Your task to perform on an android device: Search for the best gaming monitor on Best Buy Image 0: 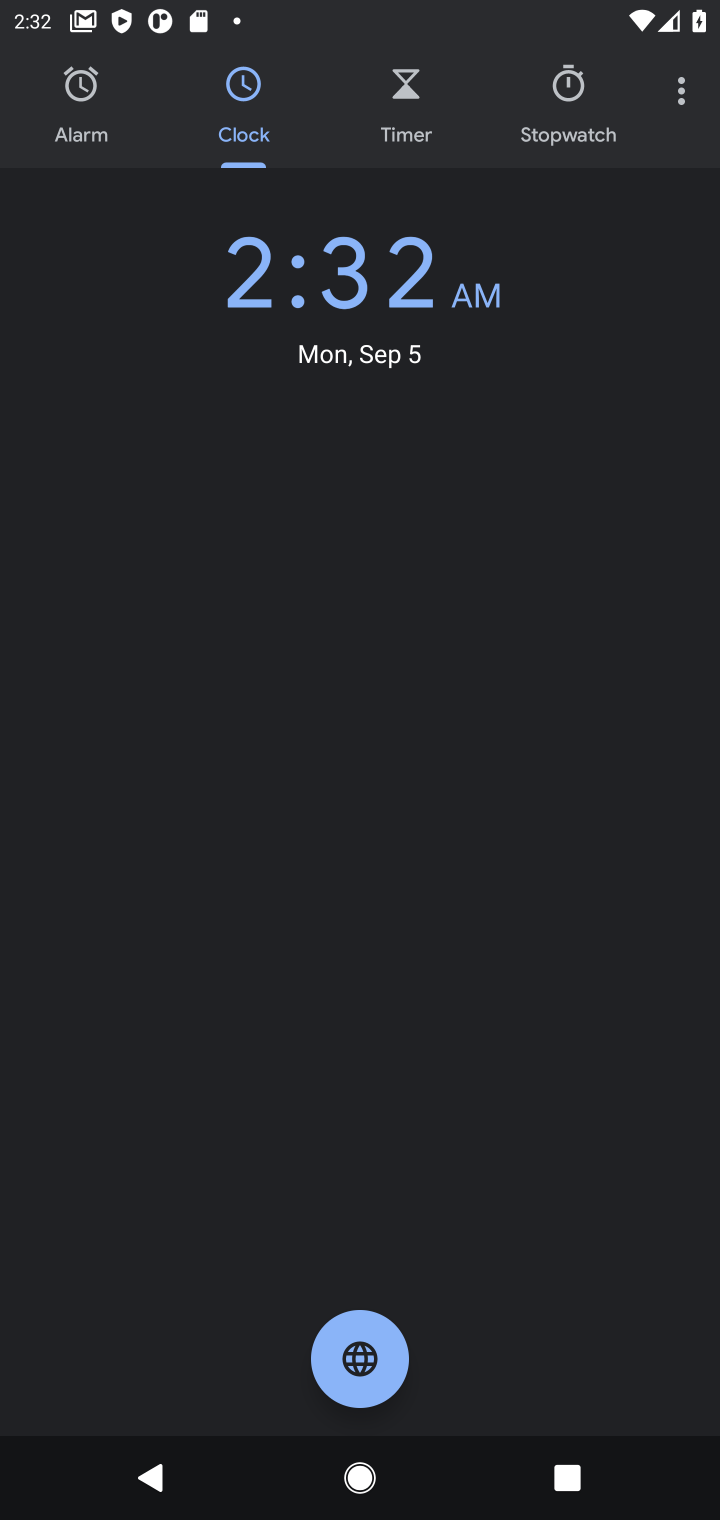
Step 0: press home button
Your task to perform on an android device: Search for the best gaming monitor on Best Buy Image 1: 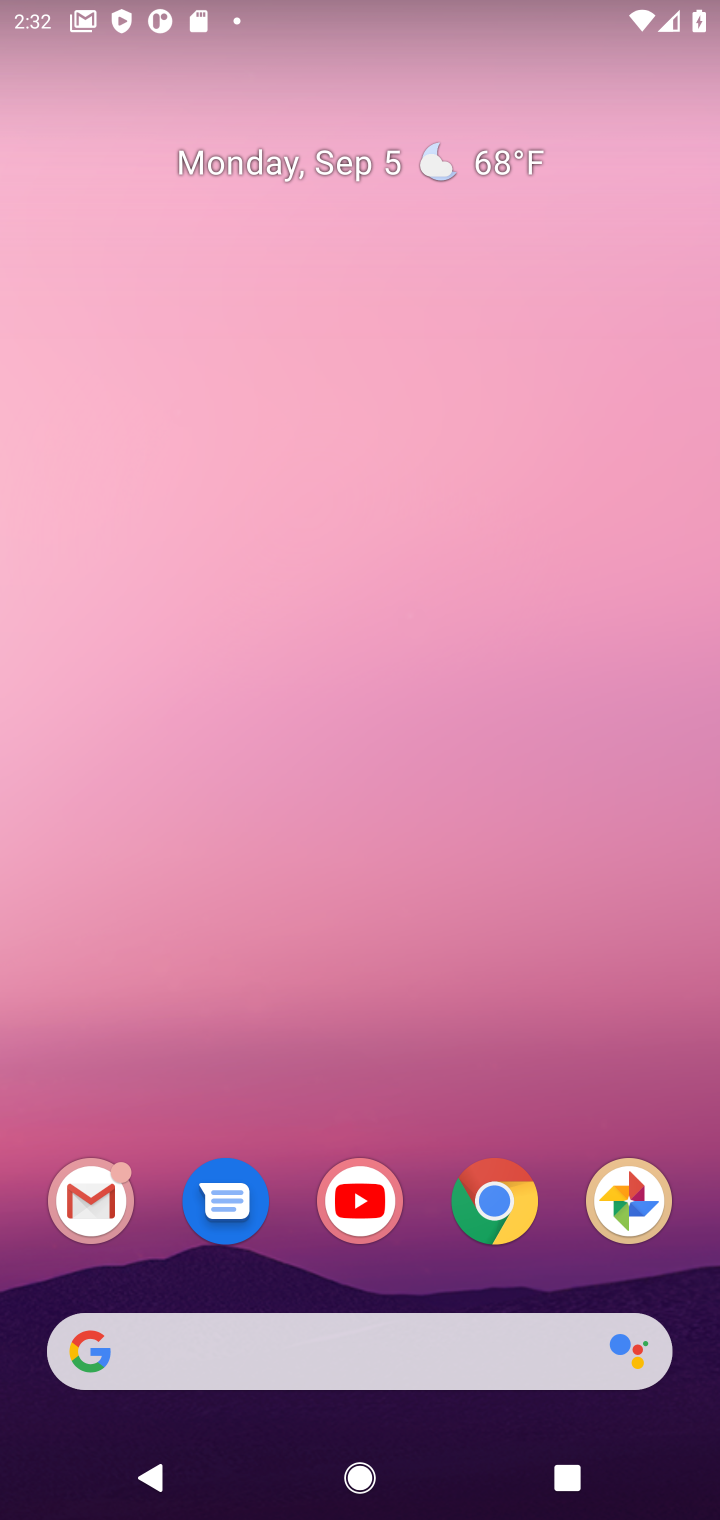
Step 1: click (504, 1199)
Your task to perform on an android device: Search for the best gaming monitor on Best Buy Image 2: 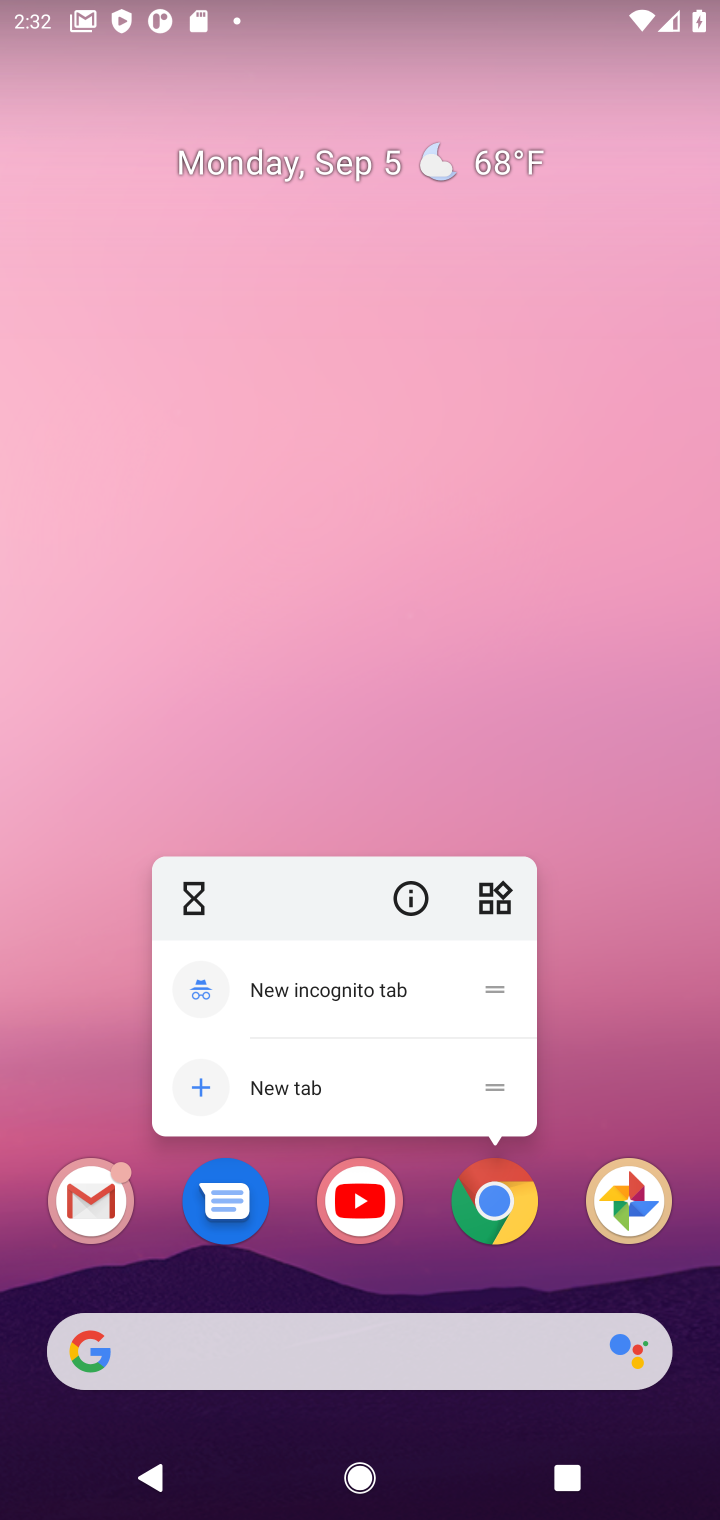
Step 2: click (504, 1199)
Your task to perform on an android device: Search for the best gaming monitor on Best Buy Image 3: 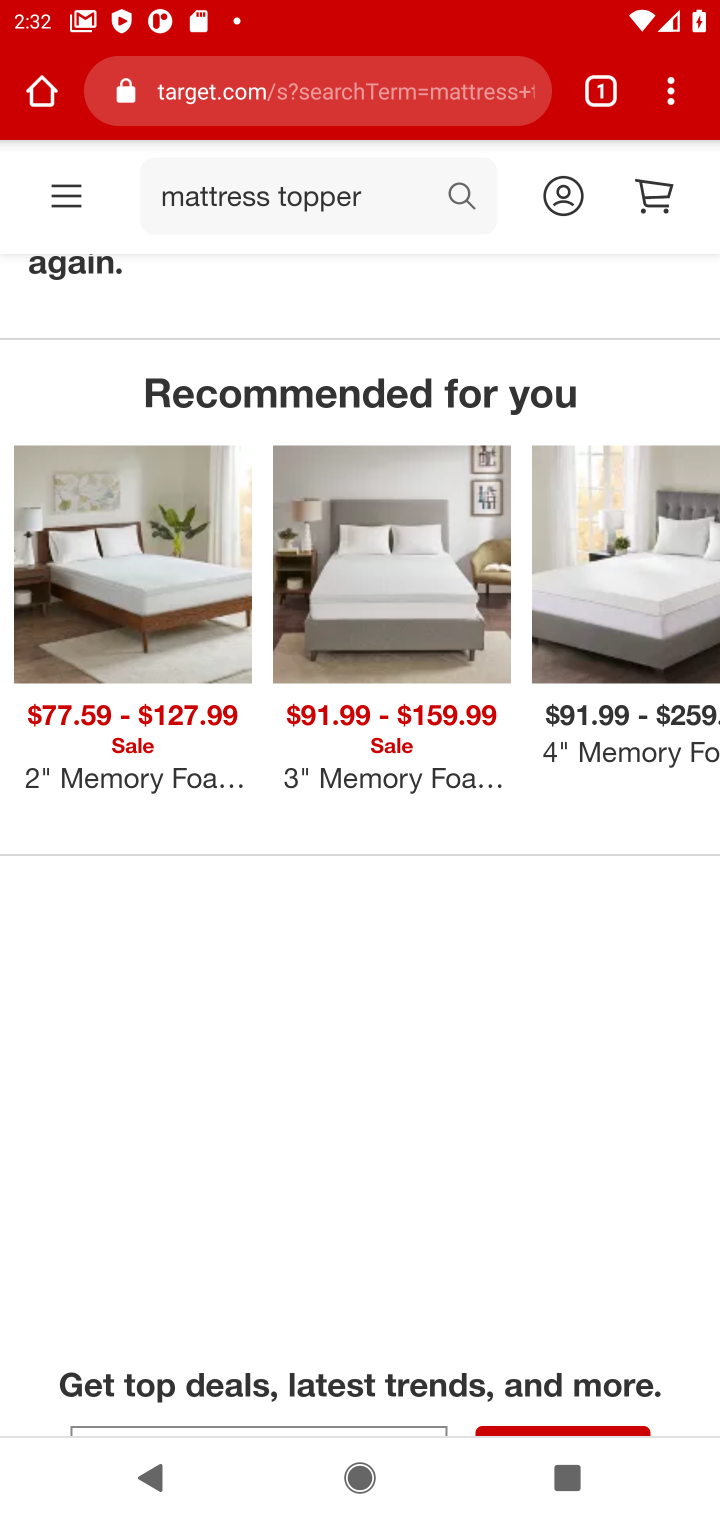
Step 3: click (389, 80)
Your task to perform on an android device: Search for the best gaming monitor on Best Buy Image 4: 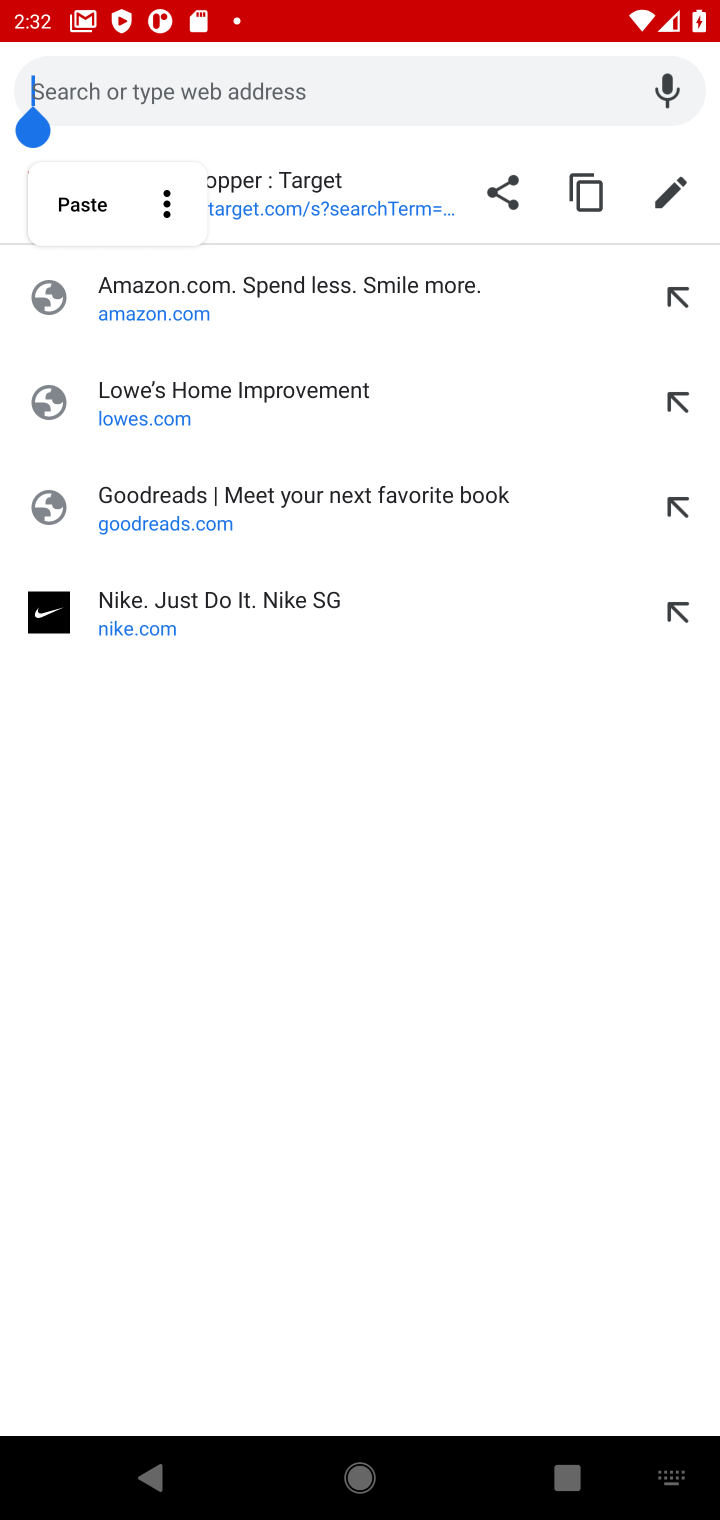
Step 4: click (363, 86)
Your task to perform on an android device: Search for the best gaming monitor on Best Buy Image 5: 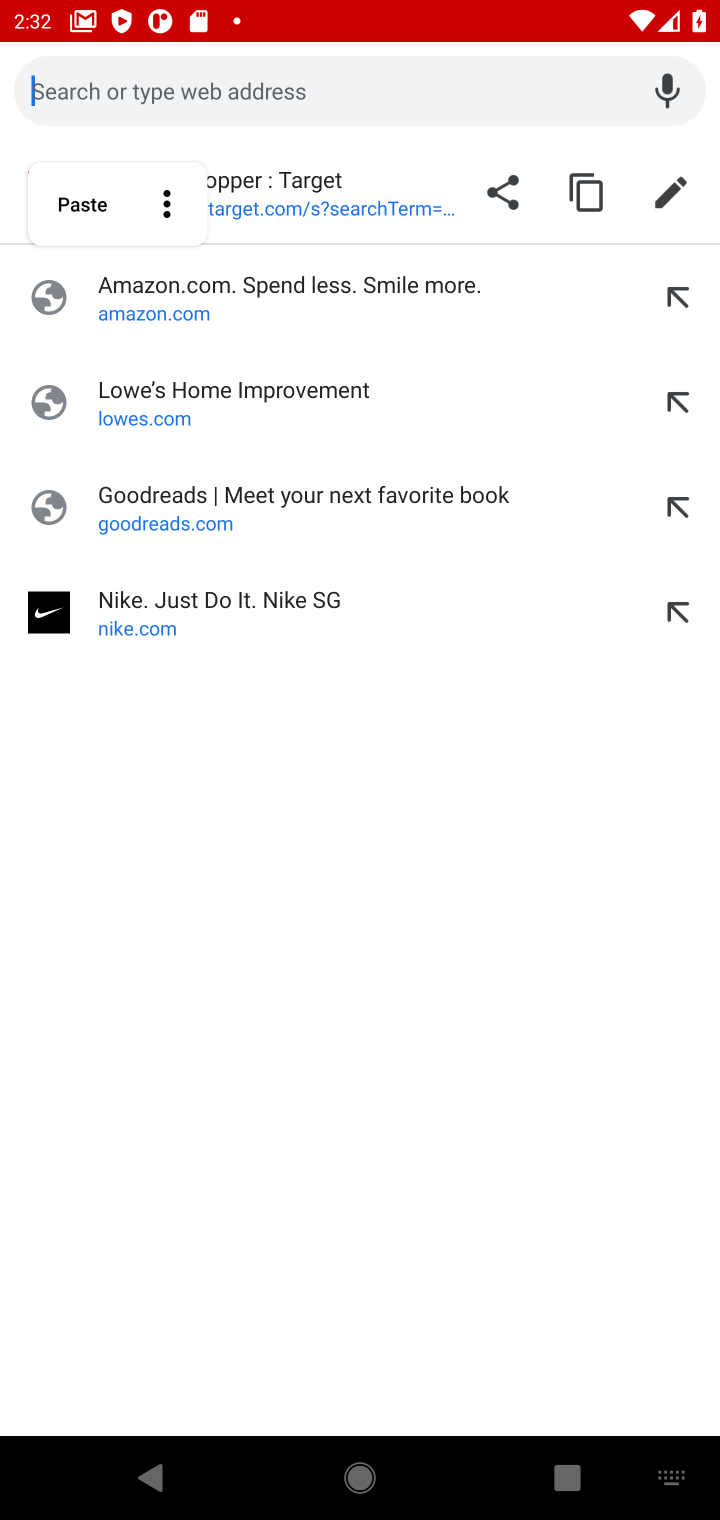
Step 5: type "Best Buy"
Your task to perform on an android device: Search for the best gaming monitor on Best Buy Image 6: 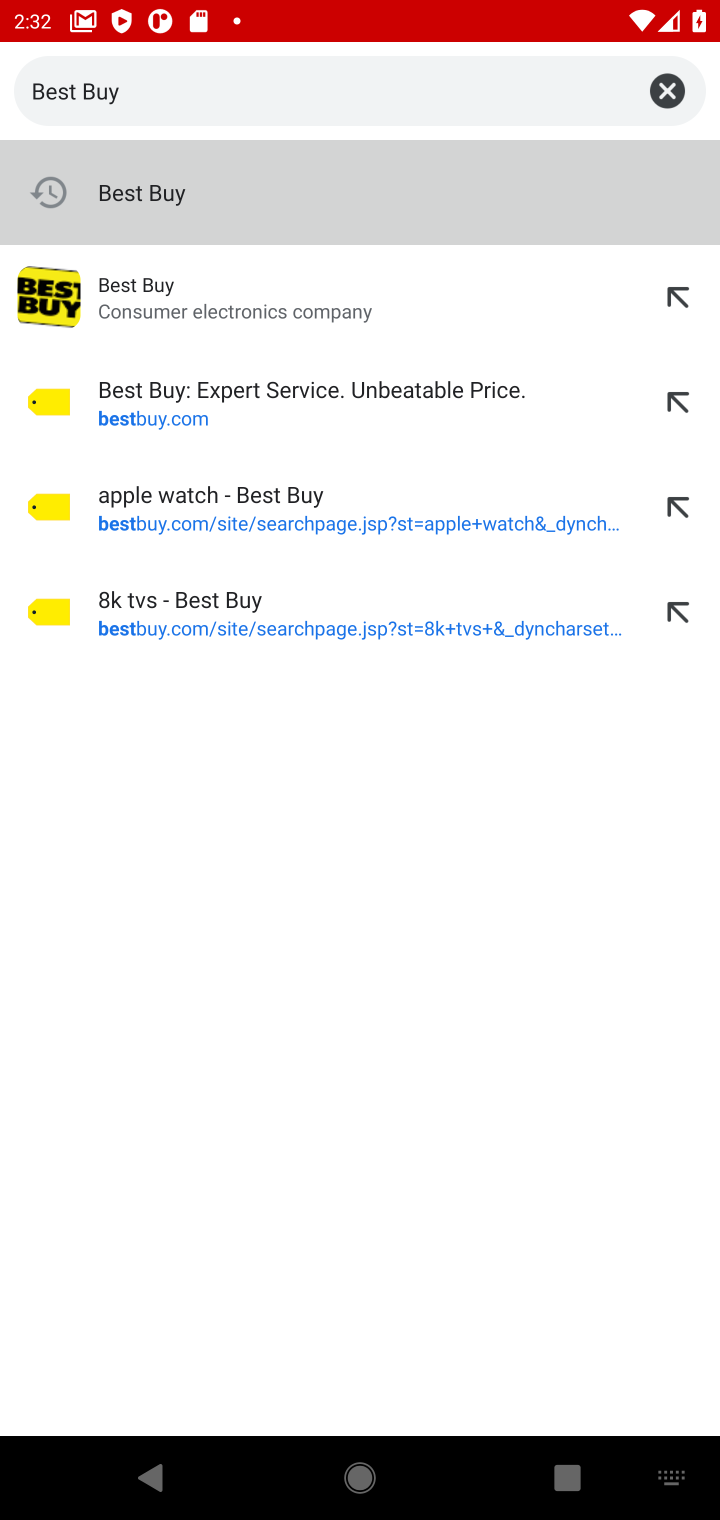
Step 6: press enter
Your task to perform on an android device: Search for the best gaming monitor on Best Buy Image 7: 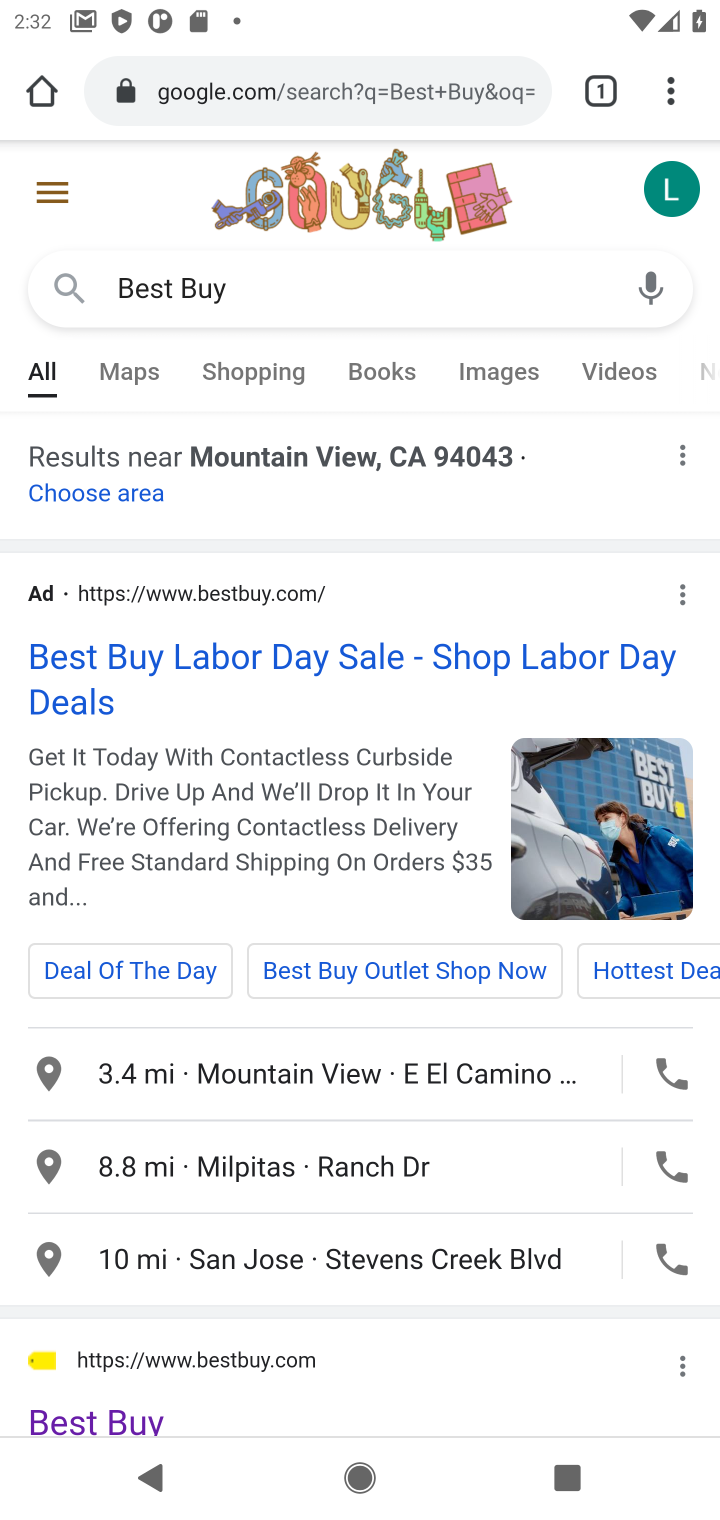
Step 7: drag from (263, 935) to (630, 111)
Your task to perform on an android device: Search for the best gaming monitor on Best Buy Image 8: 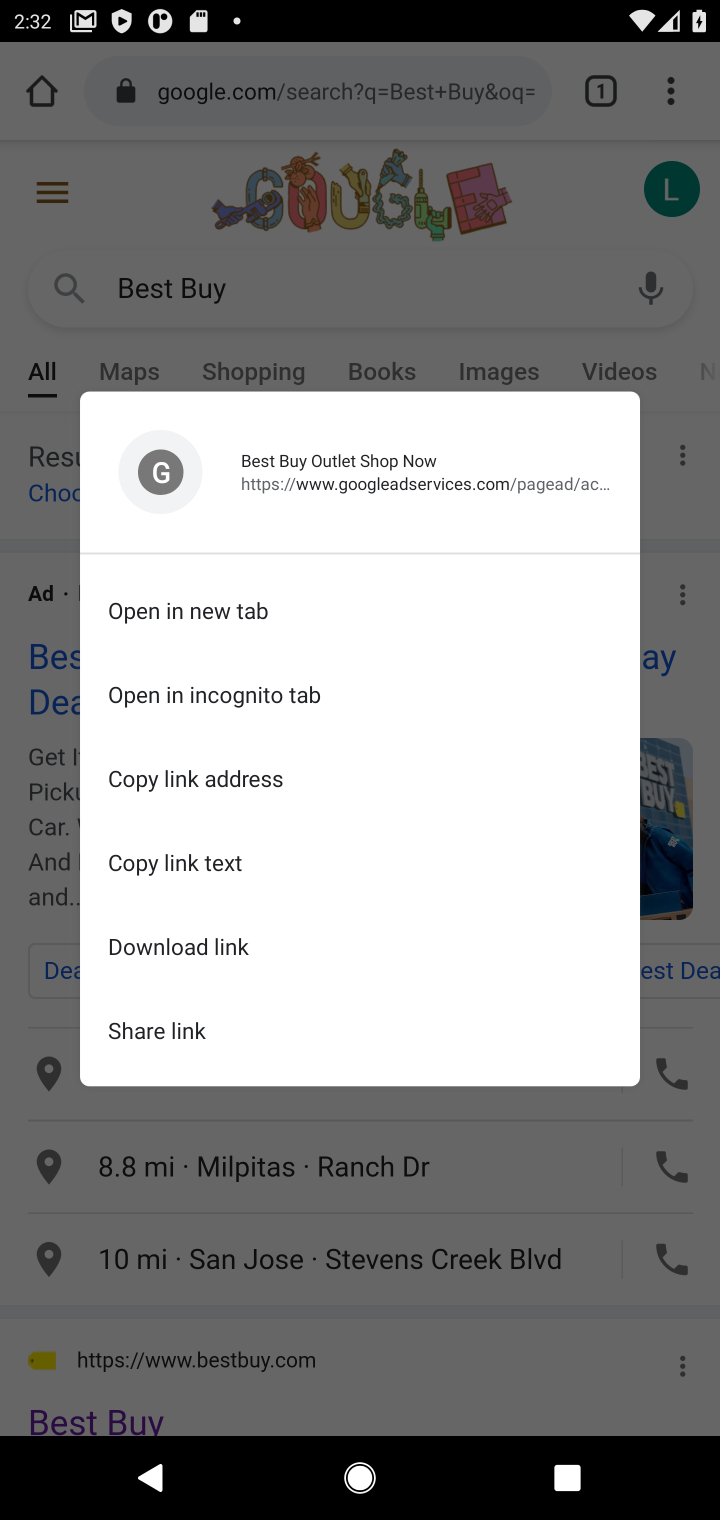
Step 8: click (512, 1276)
Your task to perform on an android device: Search for the best gaming monitor on Best Buy Image 9: 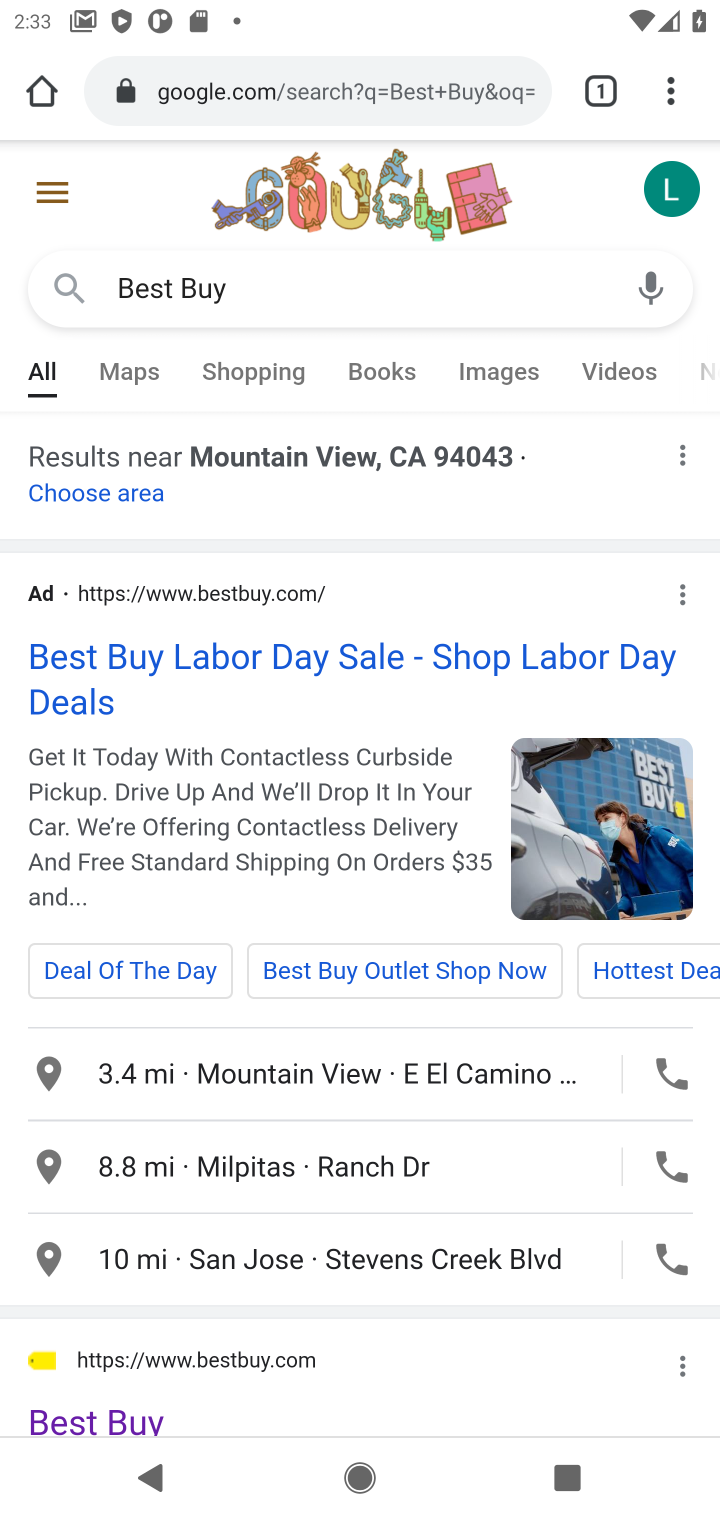
Step 9: click (133, 1429)
Your task to perform on an android device: Search for the best gaming monitor on Best Buy Image 10: 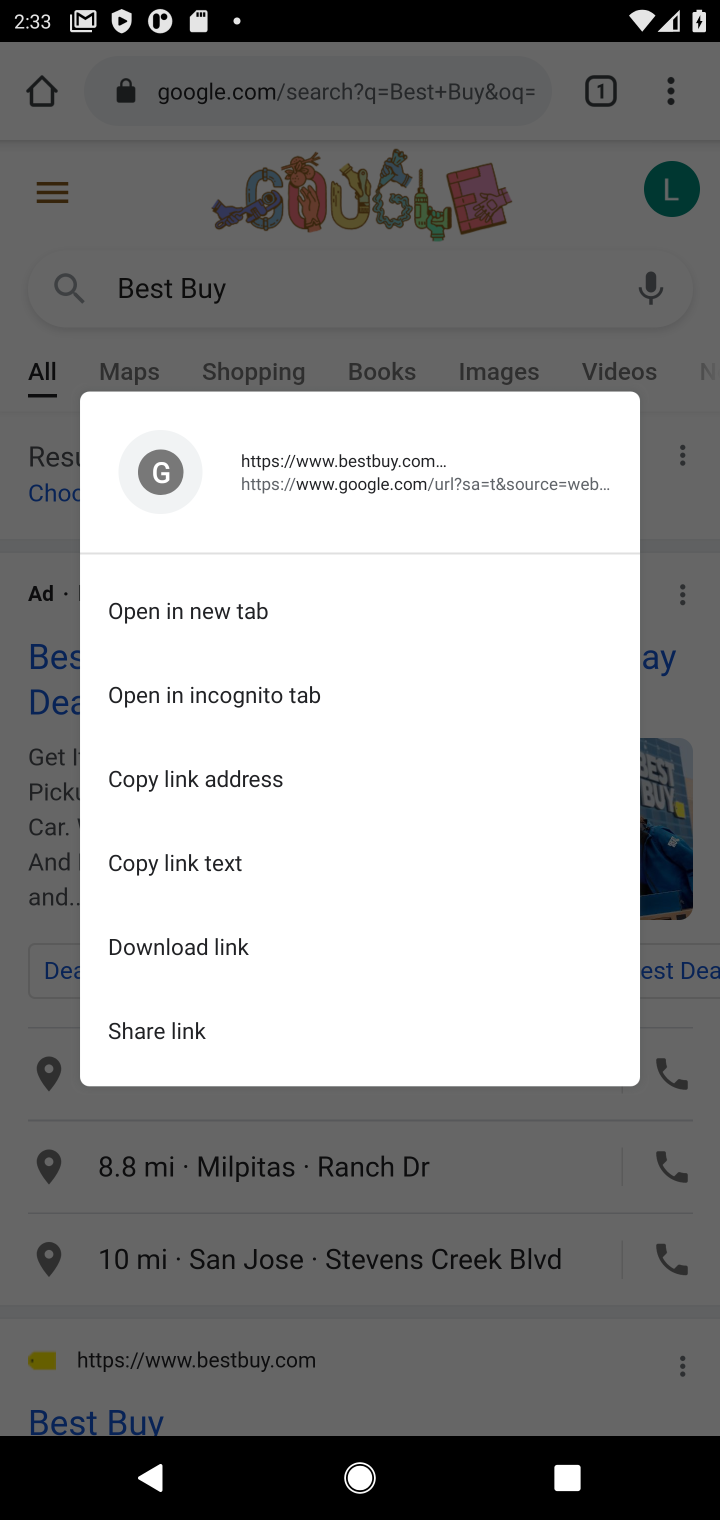
Step 10: click (405, 1377)
Your task to perform on an android device: Search for the best gaming monitor on Best Buy Image 11: 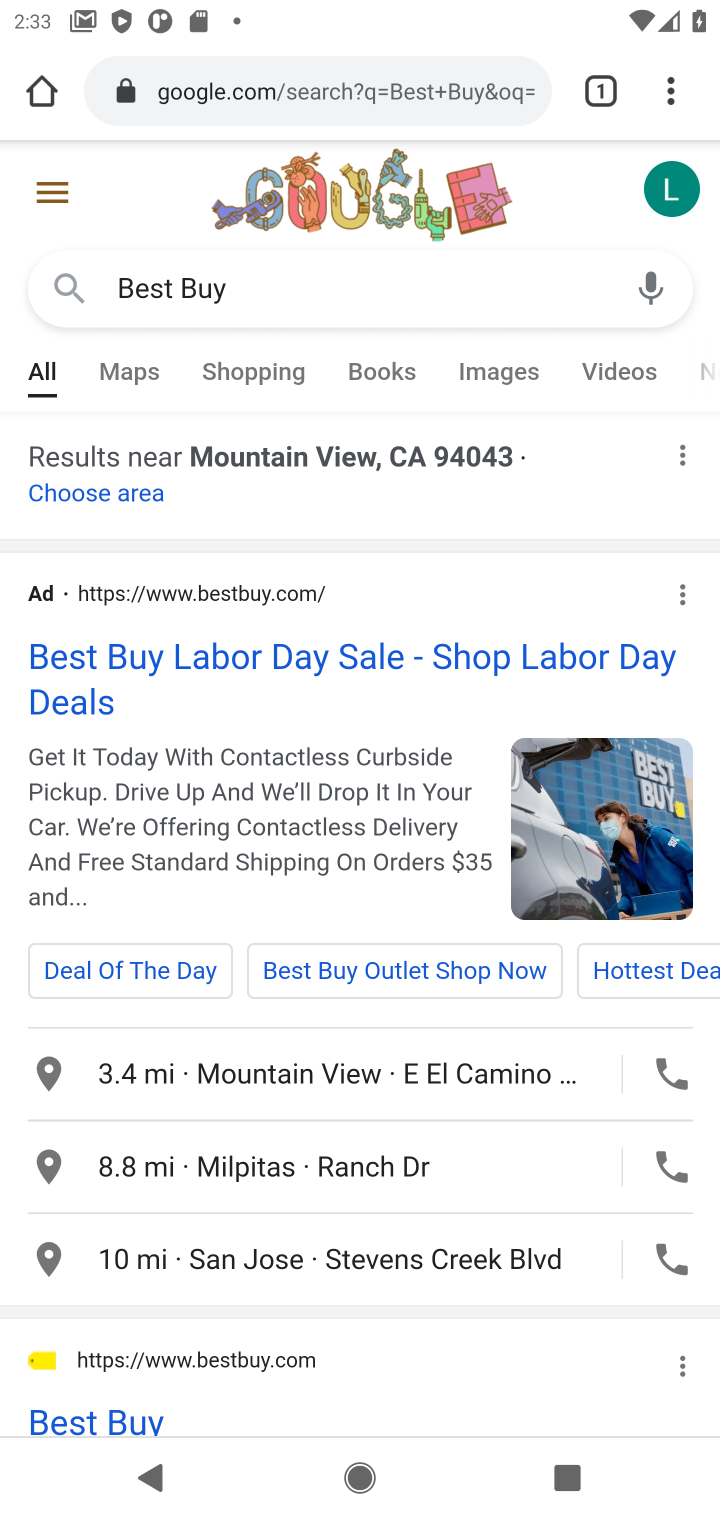
Step 11: drag from (529, 910) to (708, 434)
Your task to perform on an android device: Search for the best gaming monitor on Best Buy Image 12: 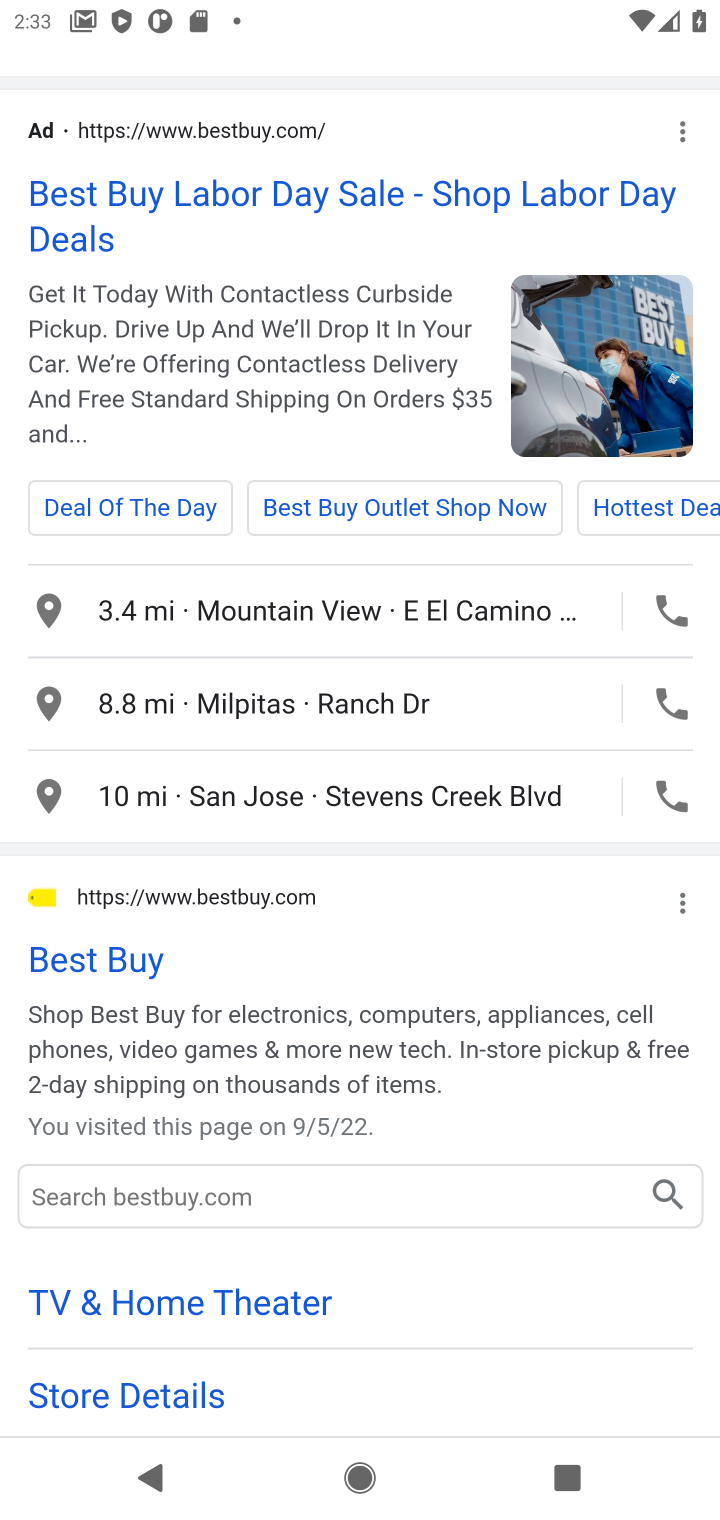
Step 12: click (110, 969)
Your task to perform on an android device: Search for the best gaming monitor on Best Buy Image 13: 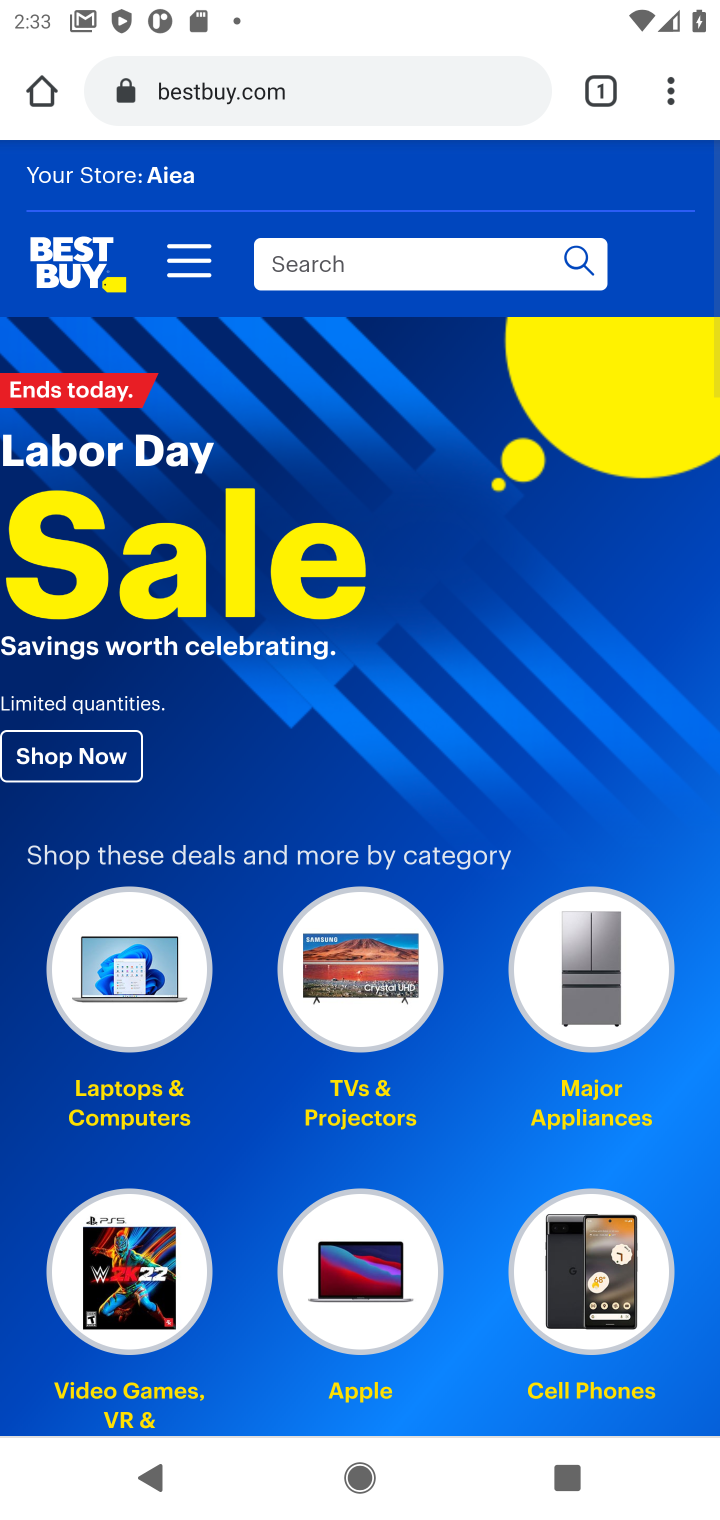
Step 13: click (371, 247)
Your task to perform on an android device: Search for the best gaming monitor on Best Buy Image 14: 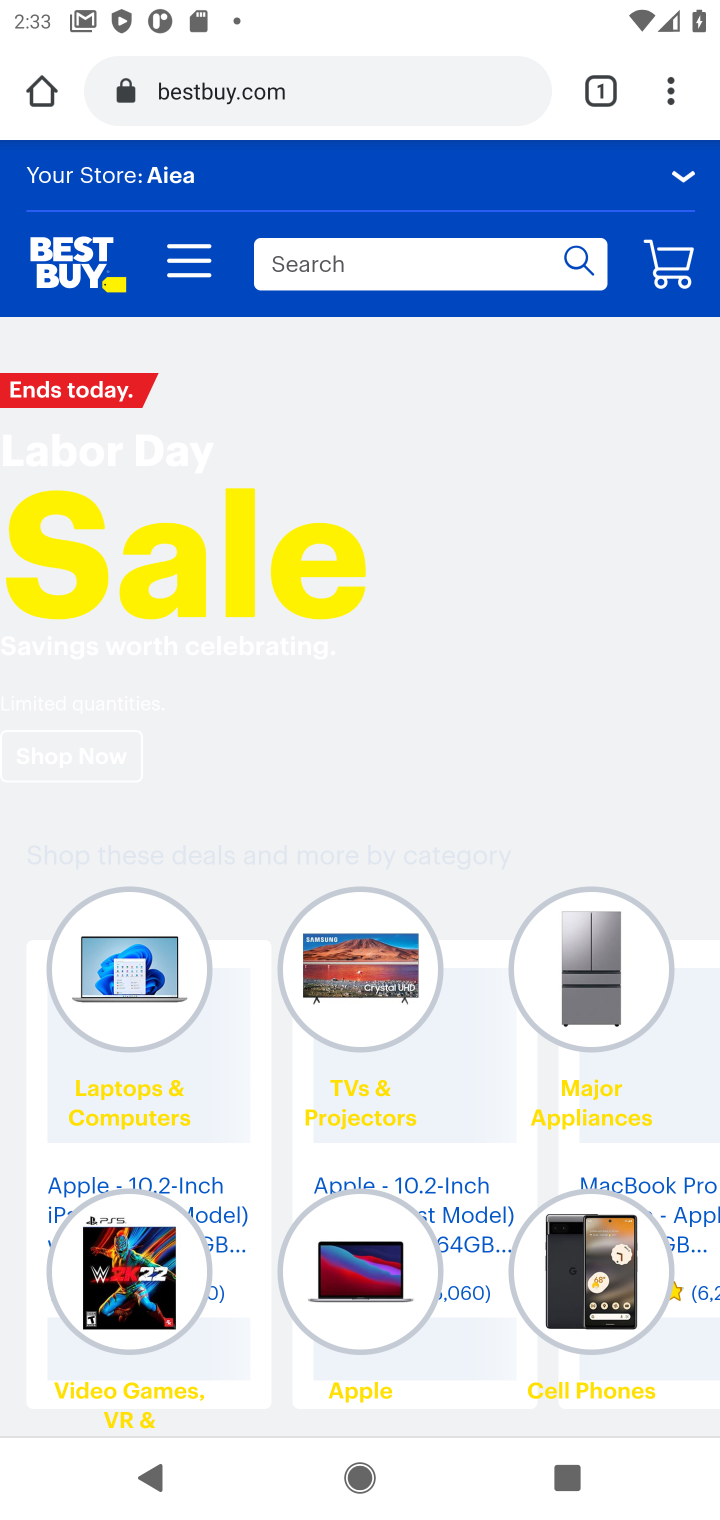
Step 14: click (400, 265)
Your task to perform on an android device: Search for the best gaming monitor on Best Buy Image 15: 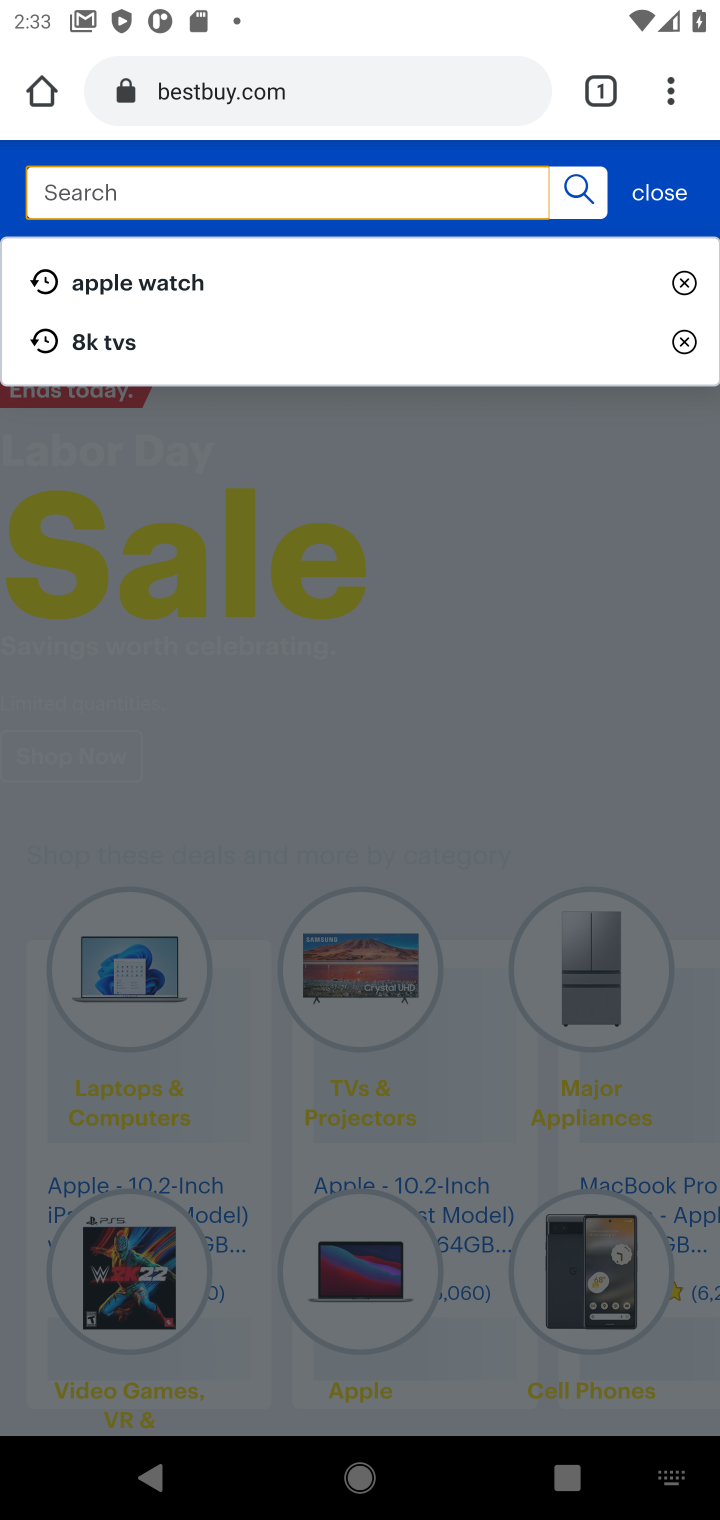
Step 15: type "gaming monitor"
Your task to perform on an android device: Search for the best gaming monitor on Best Buy Image 16: 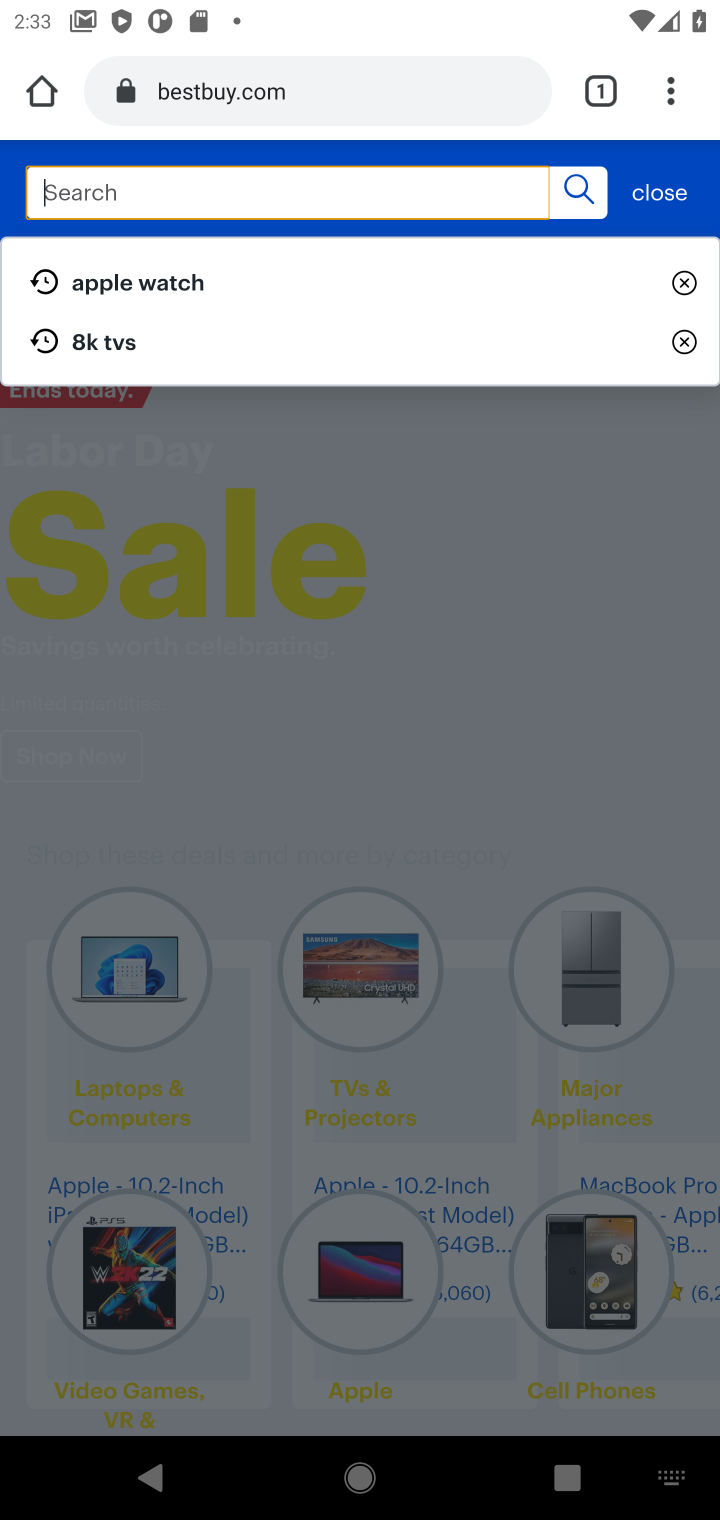
Step 16: press enter
Your task to perform on an android device: Search for the best gaming monitor on Best Buy Image 17: 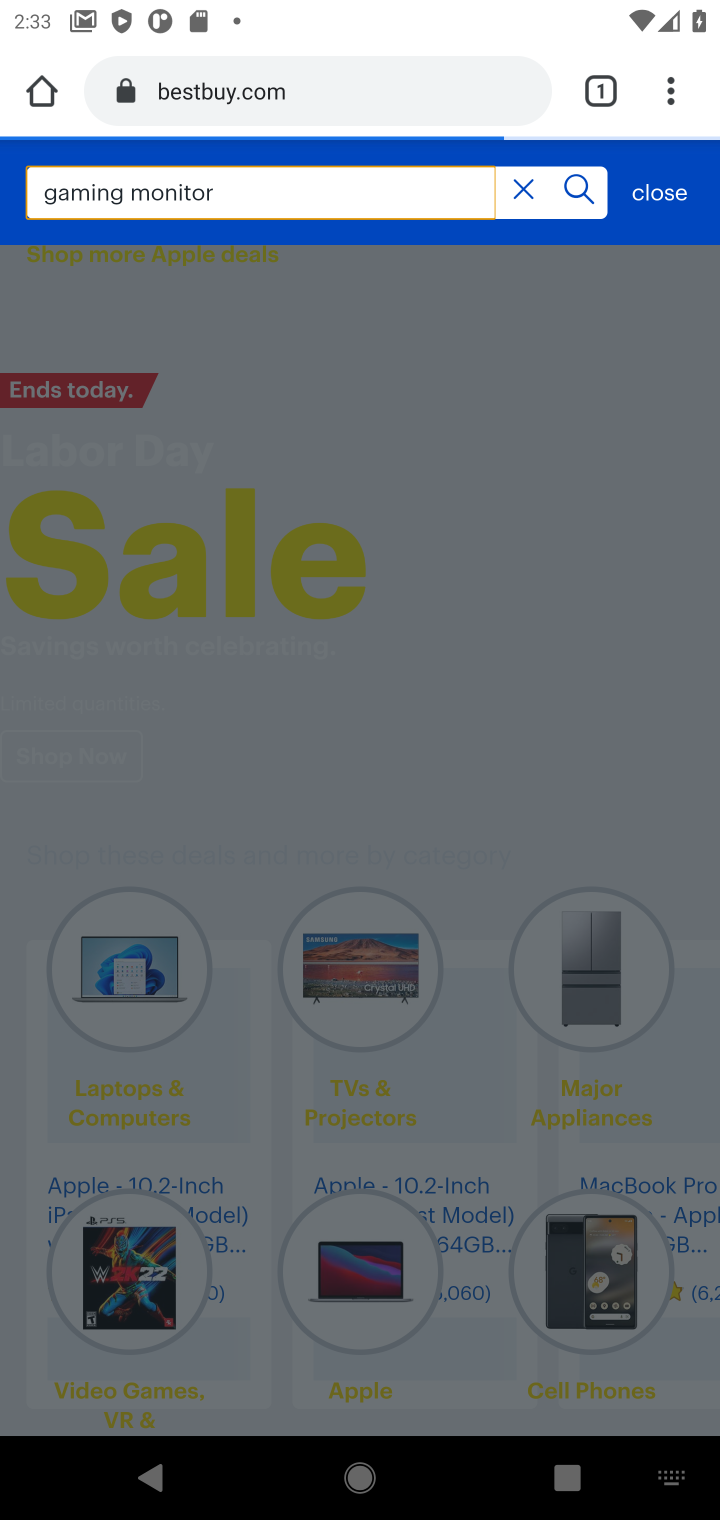
Step 17: click (583, 177)
Your task to perform on an android device: Search for the best gaming monitor on Best Buy Image 18: 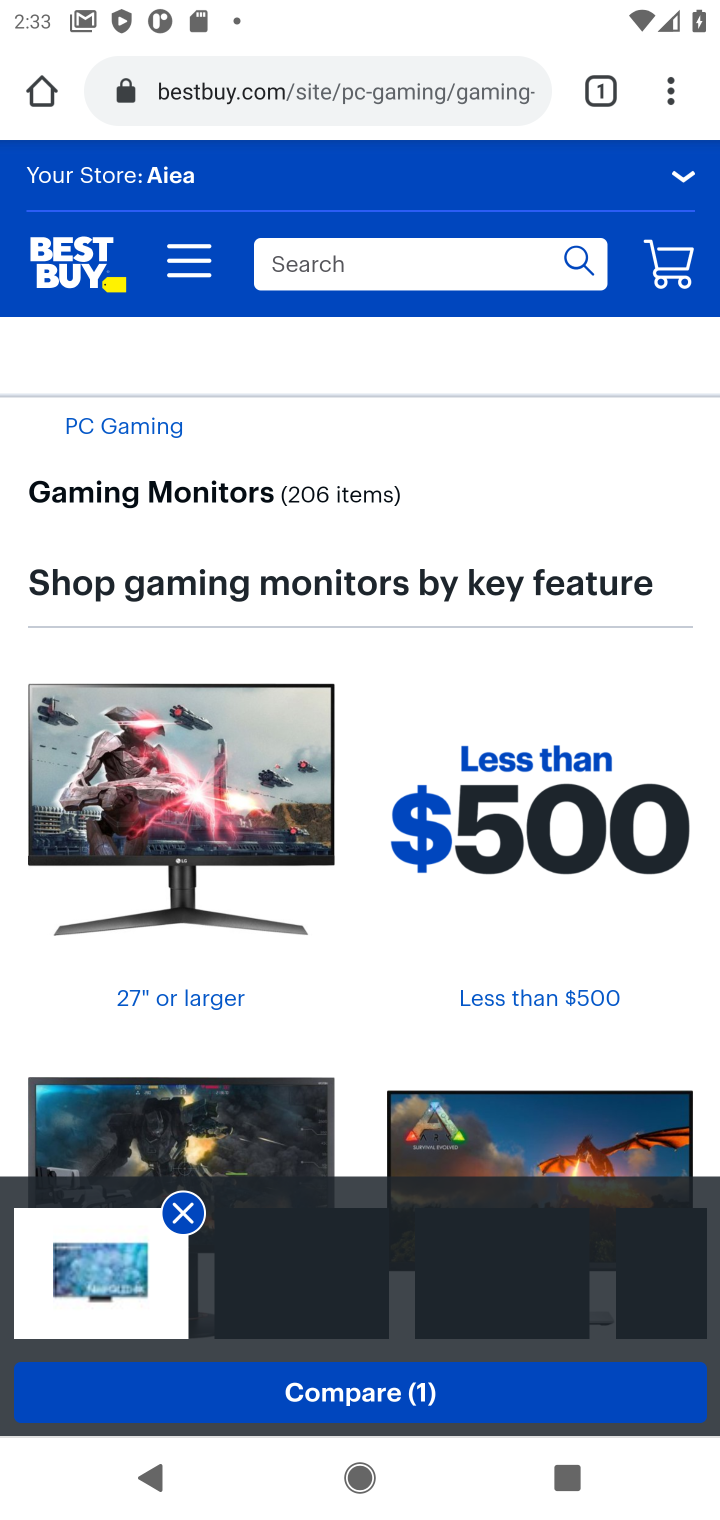
Step 18: task complete